Your task to perform on an android device: open wifi settings Image 0: 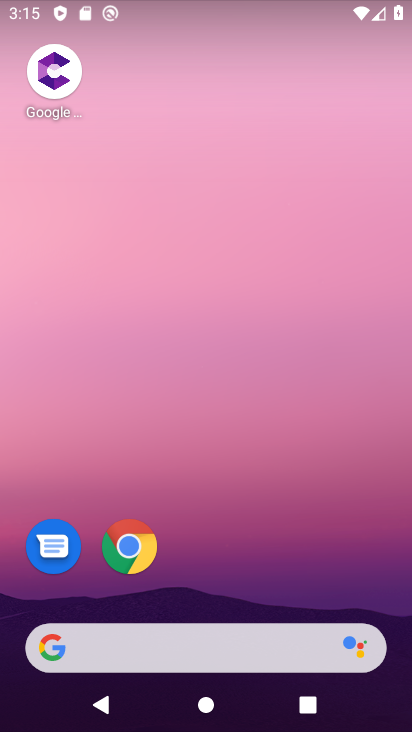
Step 0: drag from (263, 541) to (252, 67)
Your task to perform on an android device: open wifi settings Image 1: 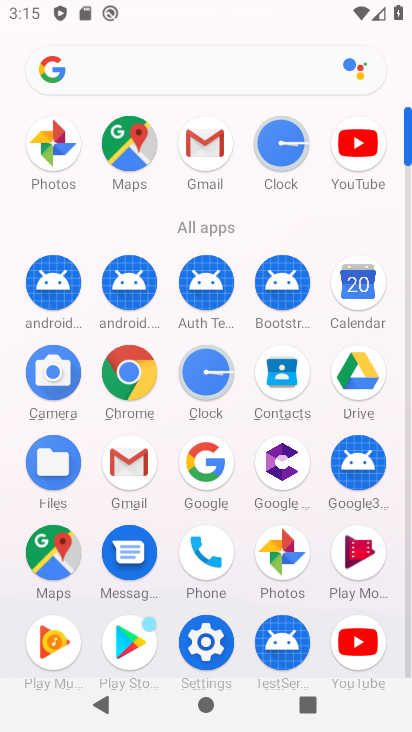
Step 1: click (211, 642)
Your task to perform on an android device: open wifi settings Image 2: 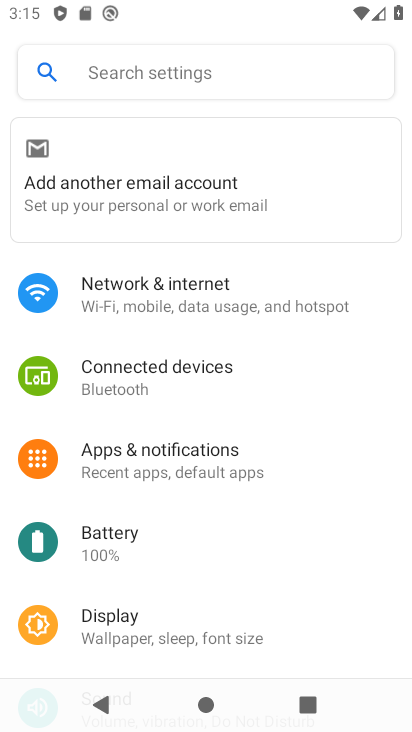
Step 2: click (200, 311)
Your task to perform on an android device: open wifi settings Image 3: 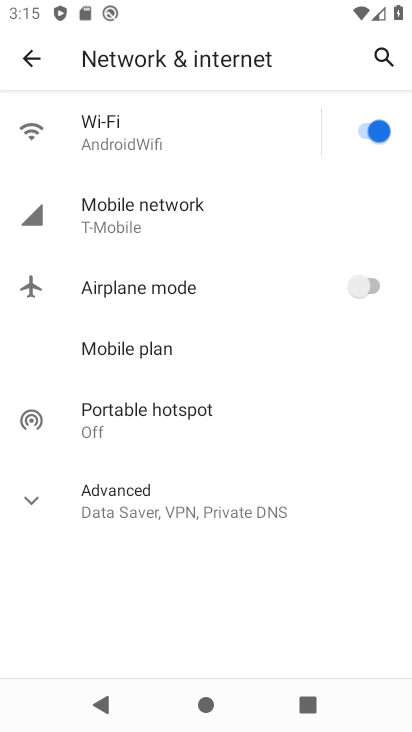
Step 3: click (129, 133)
Your task to perform on an android device: open wifi settings Image 4: 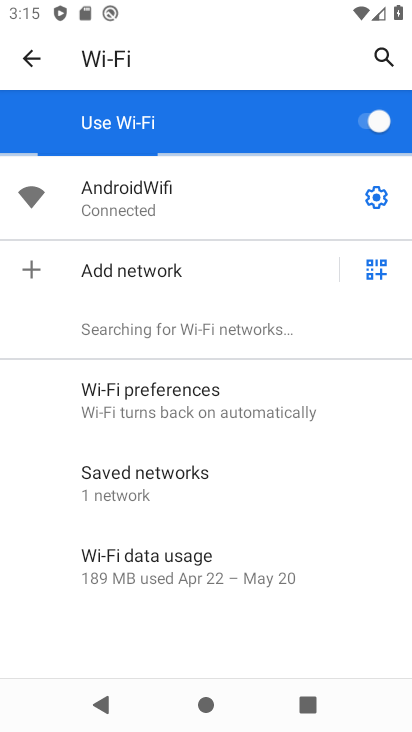
Step 4: click (374, 197)
Your task to perform on an android device: open wifi settings Image 5: 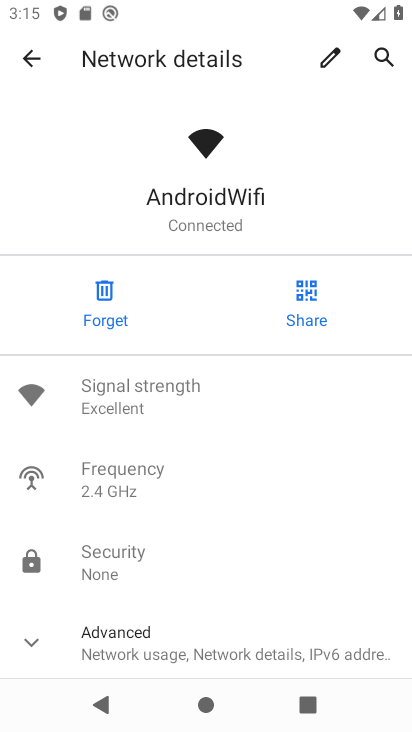
Step 5: task complete